Your task to perform on an android device: open app "Google Home" Image 0: 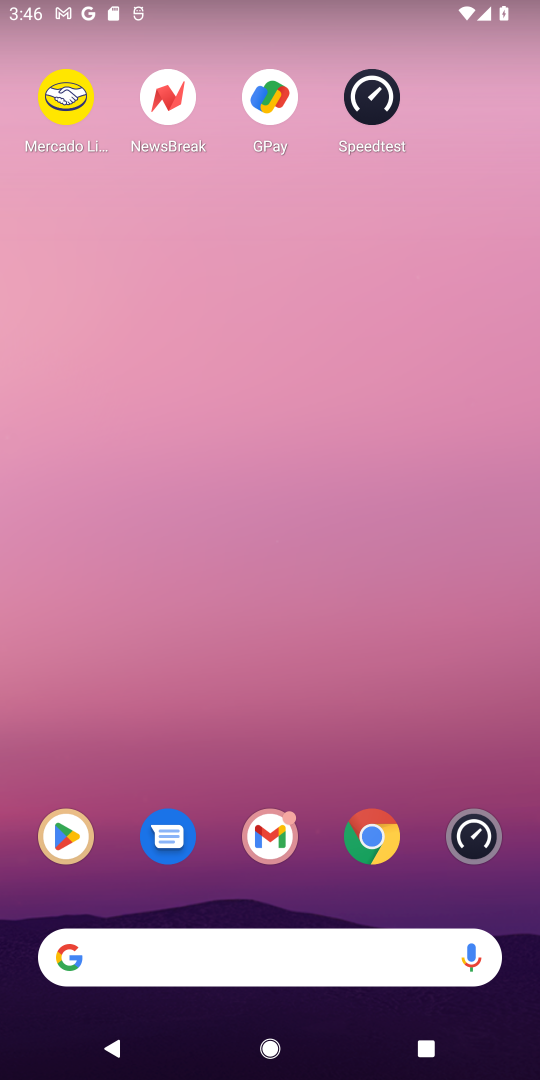
Step 0: drag from (173, 957) to (163, 162)
Your task to perform on an android device: open app "Google Home" Image 1: 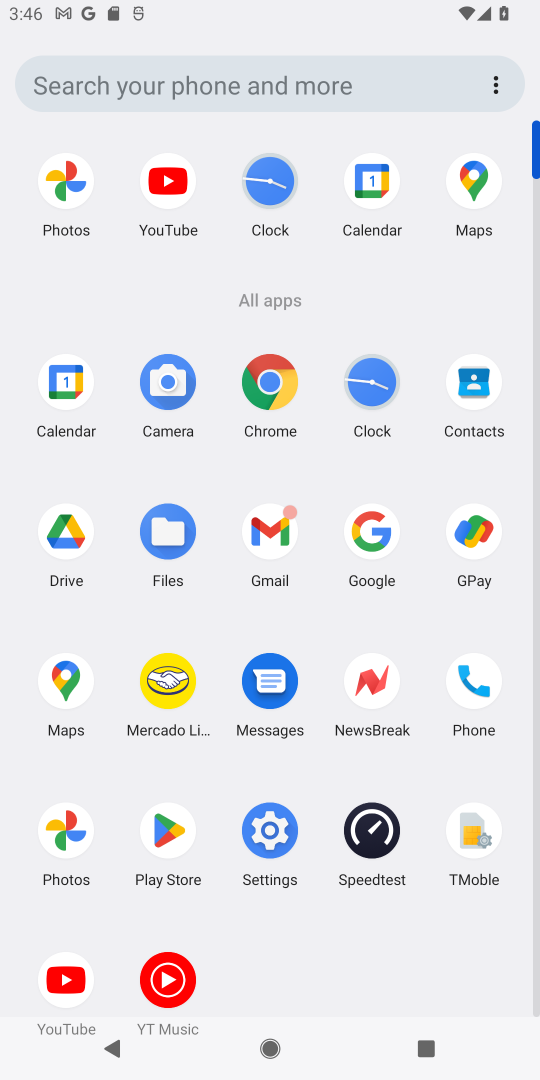
Step 1: click (160, 843)
Your task to perform on an android device: open app "Google Home" Image 2: 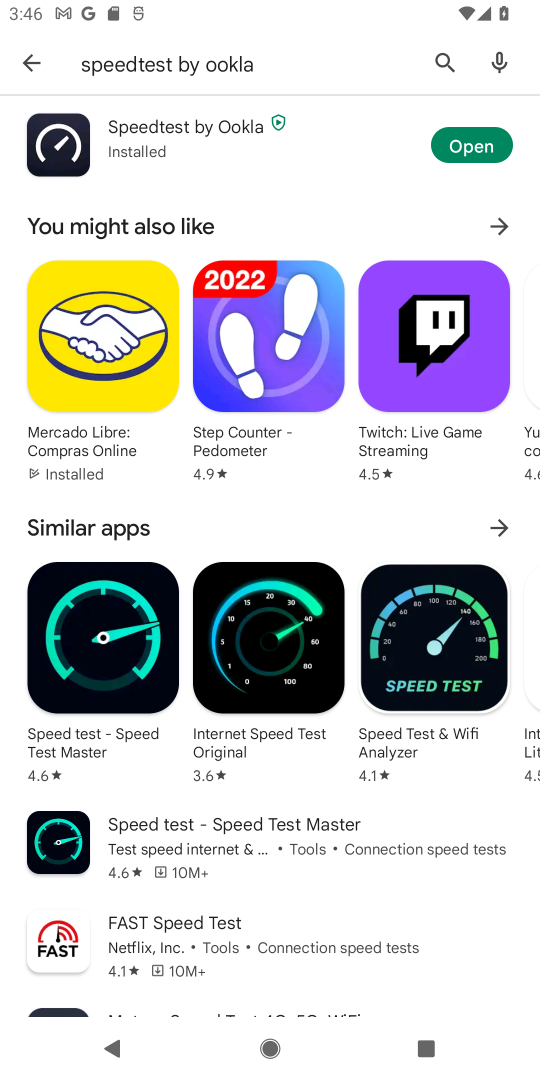
Step 2: click (22, 67)
Your task to perform on an android device: open app "Google Home" Image 3: 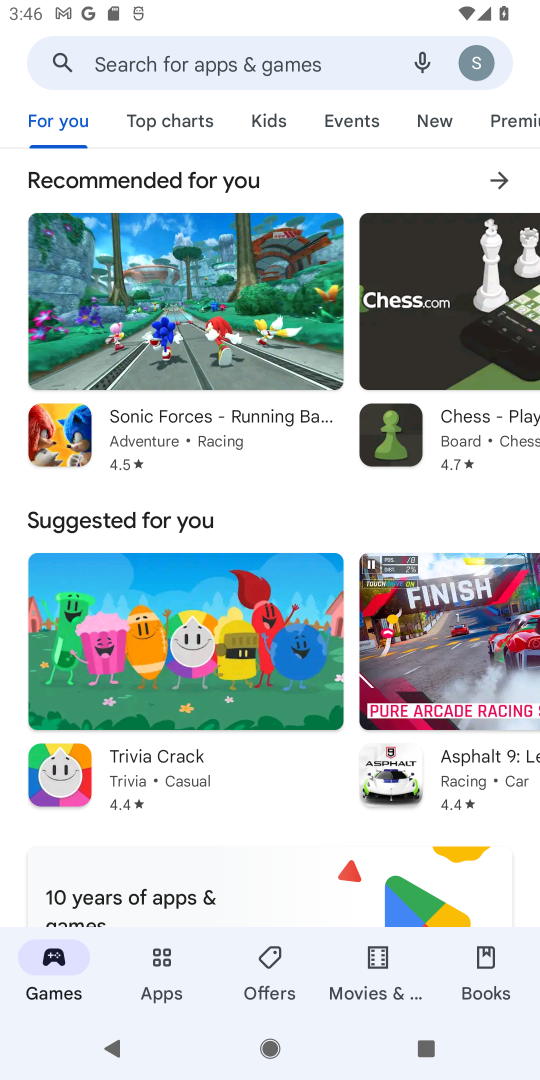
Step 3: click (157, 65)
Your task to perform on an android device: open app "Google Home" Image 4: 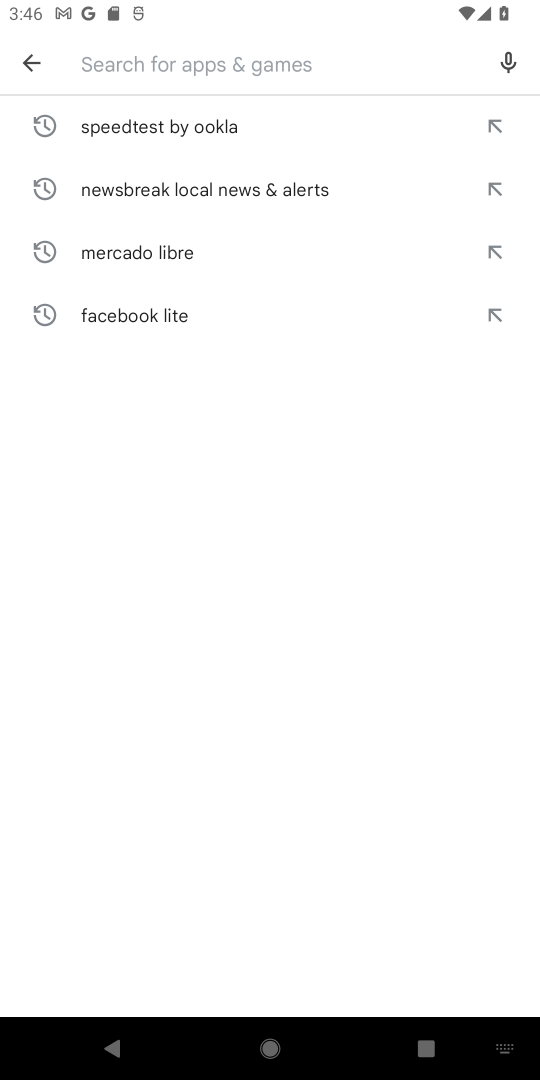
Step 4: type "Google Home"
Your task to perform on an android device: open app "Google Home" Image 5: 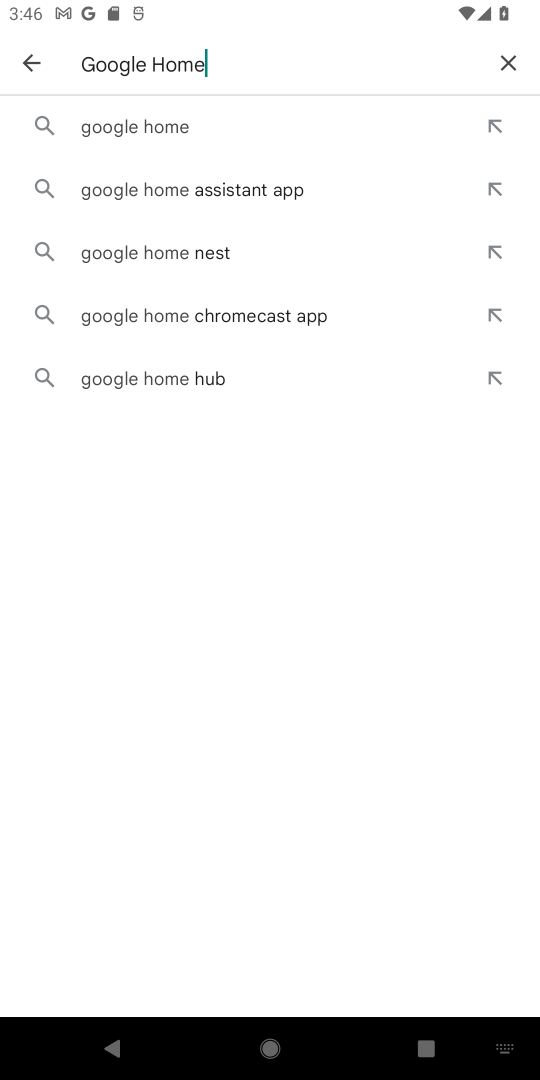
Step 5: click (161, 129)
Your task to perform on an android device: open app "Google Home" Image 6: 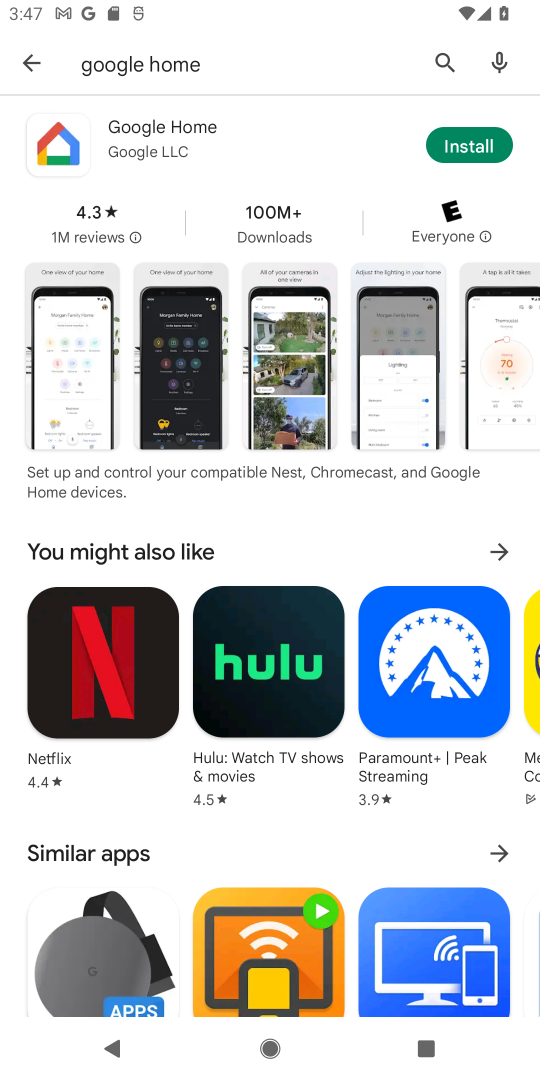
Step 6: click (482, 145)
Your task to perform on an android device: open app "Google Home" Image 7: 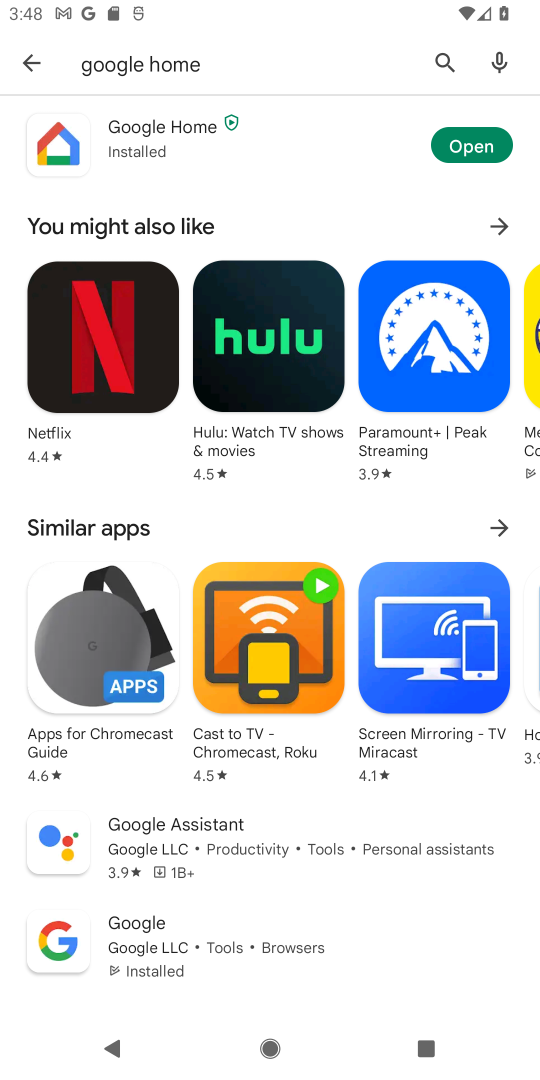
Step 7: click (506, 143)
Your task to perform on an android device: open app "Google Home" Image 8: 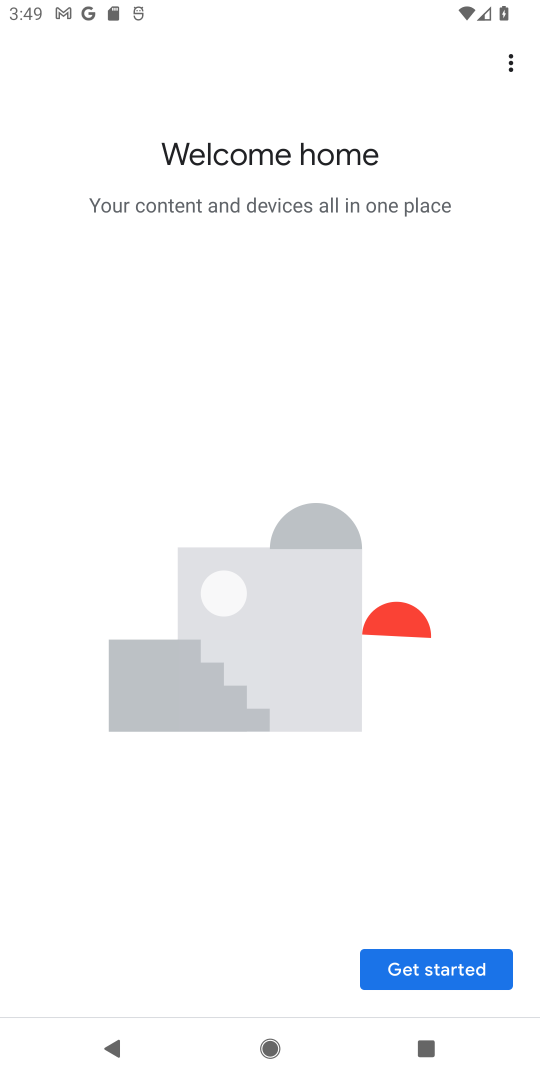
Step 8: task complete